Your task to perform on an android device: See recent photos Image 0: 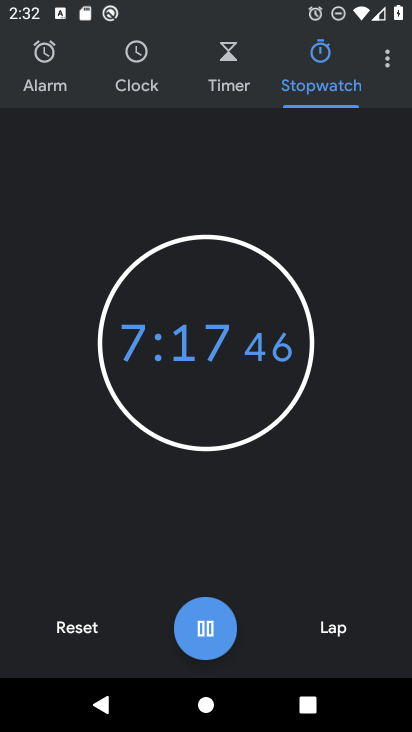
Step 0: press home button
Your task to perform on an android device: See recent photos Image 1: 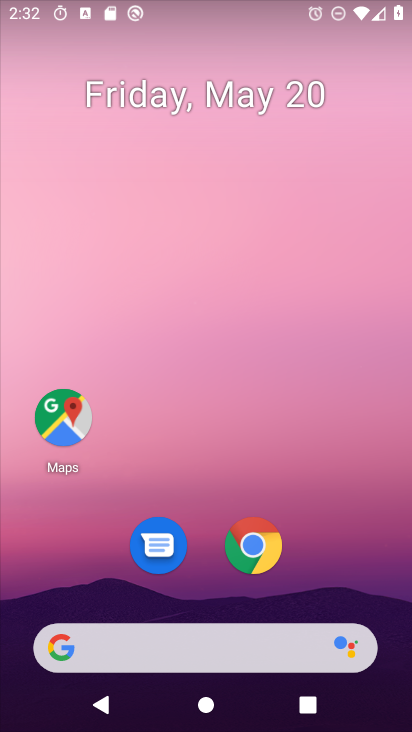
Step 1: drag from (201, 591) to (237, 5)
Your task to perform on an android device: See recent photos Image 2: 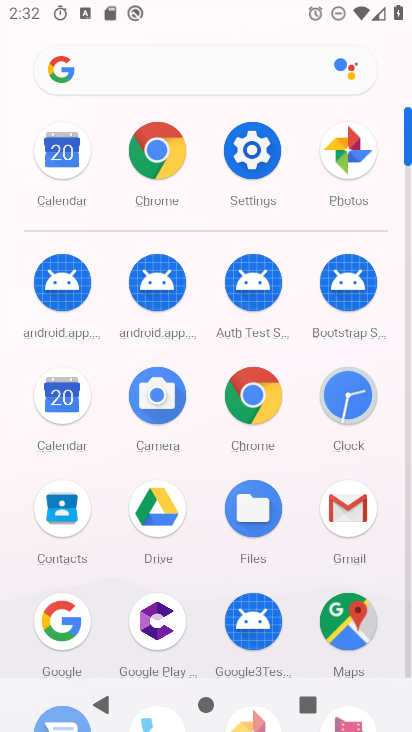
Step 2: drag from (204, 602) to (202, 273)
Your task to perform on an android device: See recent photos Image 3: 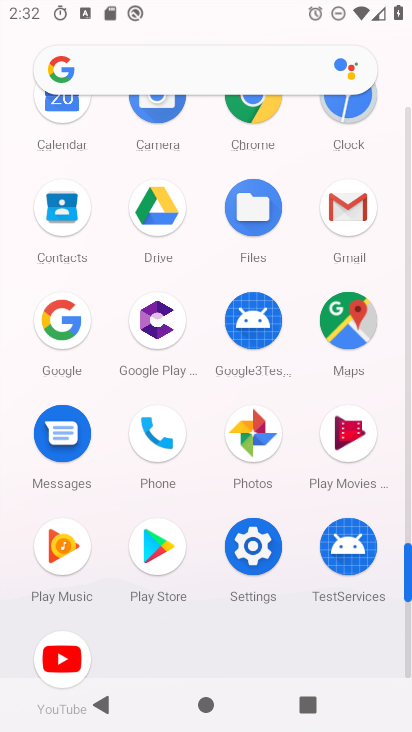
Step 3: click (242, 443)
Your task to perform on an android device: See recent photos Image 4: 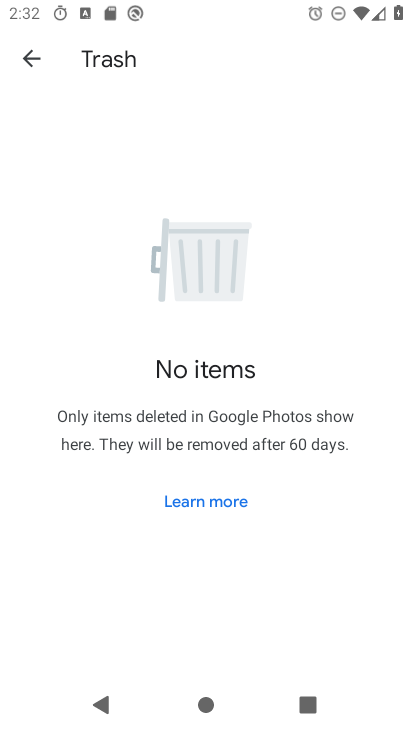
Step 4: press back button
Your task to perform on an android device: See recent photos Image 5: 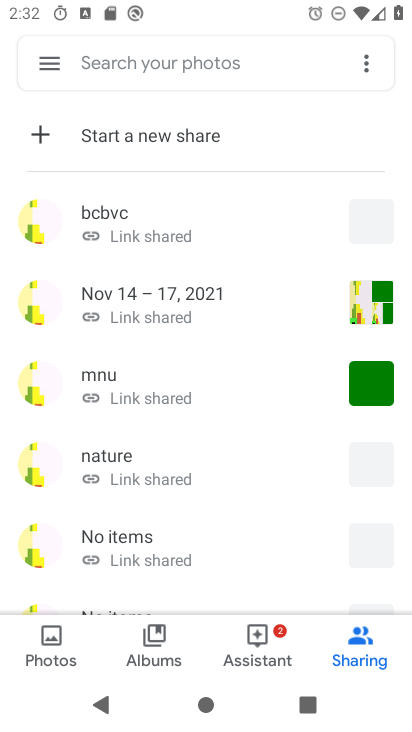
Step 5: press back button
Your task to perform on an android device: See recent photos Image 6: 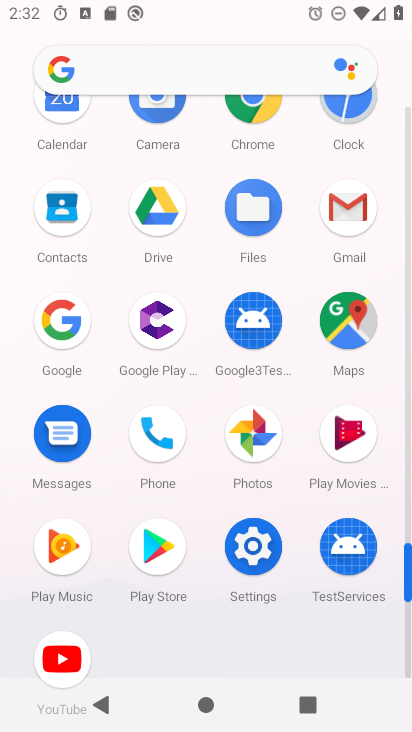
Step 6: click (258, 421)
Your task to perform on an android device: See recent photos Image 7: 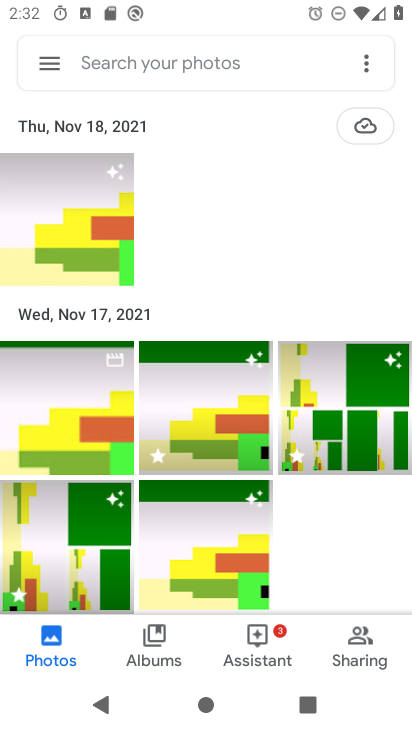
Step 7: task complete